Your task to perform on an android device: Go to sound settings Image 0: 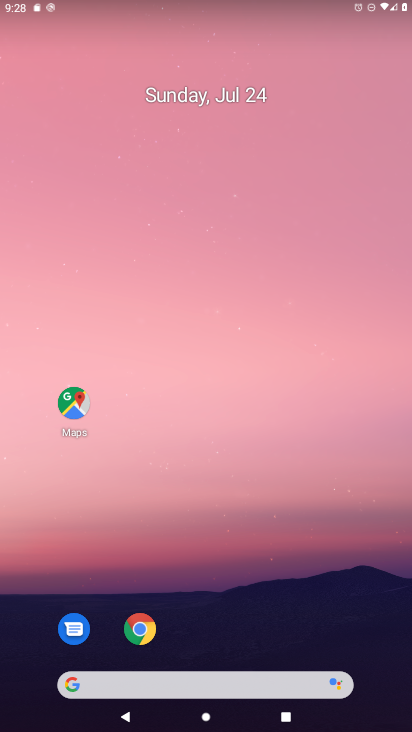
Step 0: drag from (362, 640) to (172, 60)
Your task to perform on an android device: Go to sound settings Image 1: 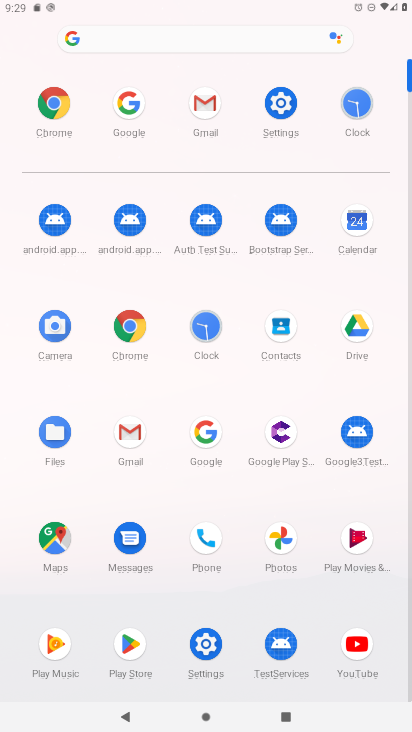
Step 1: click (206, 651)
Your task to perform on an android device: Go to sound settings Image 2: 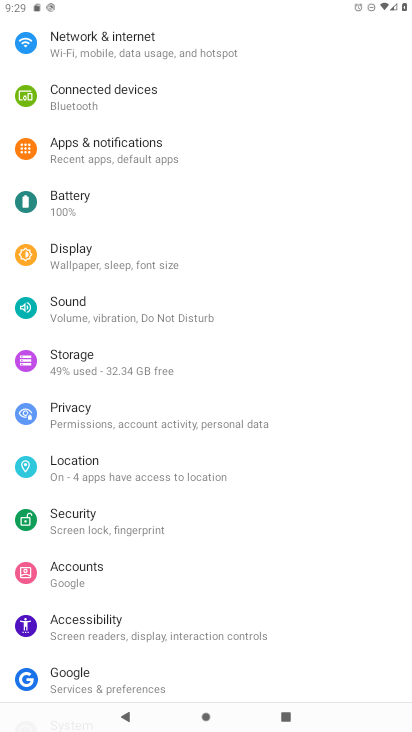
Step 2: click (87, 315)
Your task to perform on an android device: Go to sound settings Image 3: 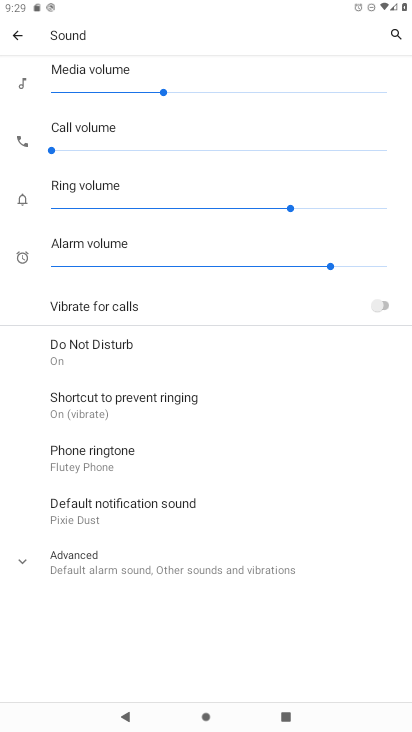
Step 3: task complete